Your task to perform on an android device: change the clock style Image 0: 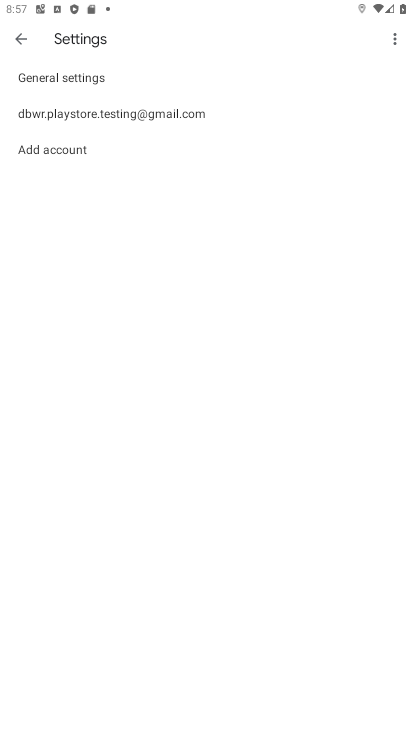
Step 0: click (179, 106)
Your task to perform on an android device: change the clock style Image 1: 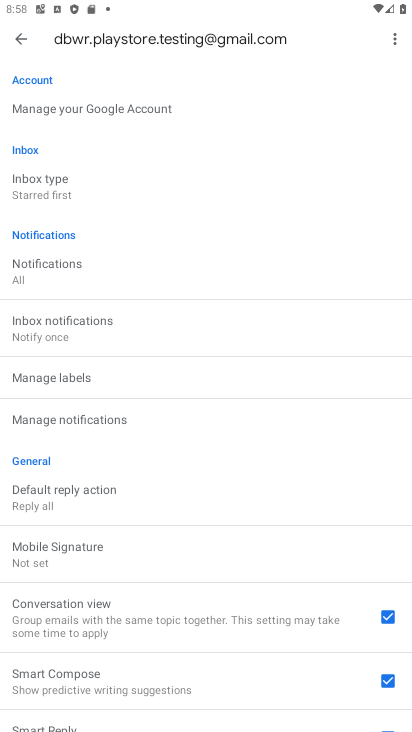
Step 1: press home button
Your task to perform on an android device: change the clock style Image 2: 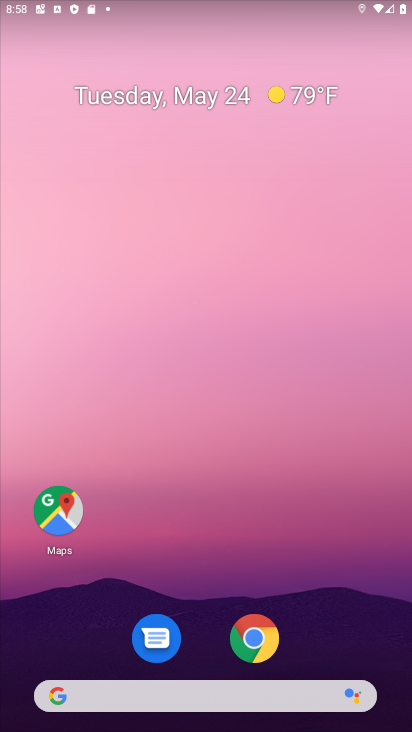
Step 2: drag from (143, 709) to (190, 269)
Your task to perform on an android device: change the clock style Image 3: 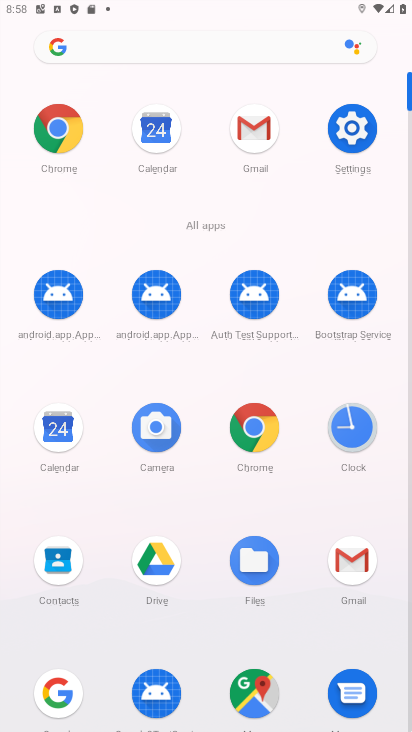
Step 3: click (351, 423)
Your task to perform on an android device: change the clock style Image 4: 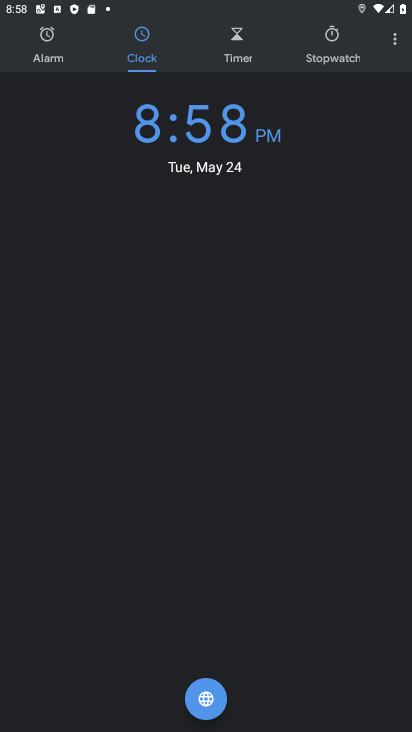
Step 4: click (394, 44)
Your task to perform on an android device: change the clock style Image 5: 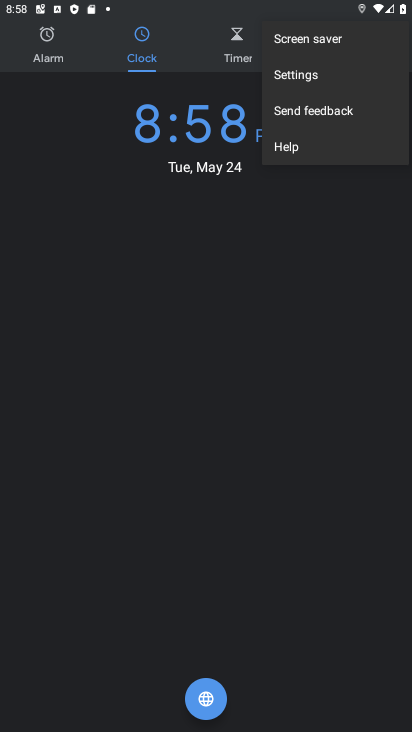
Step 5: click (327, 70)
Your task to perform on an android device: change the clock style Image 6: 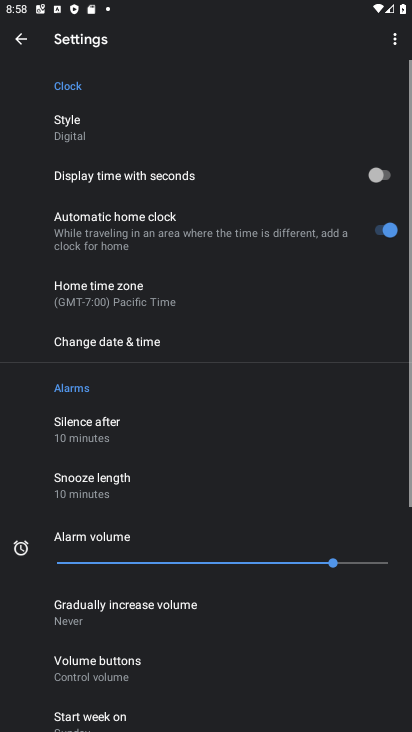
Step 6: click (122, 135)
Your task to perform on an android device: change the clock style Image 7: 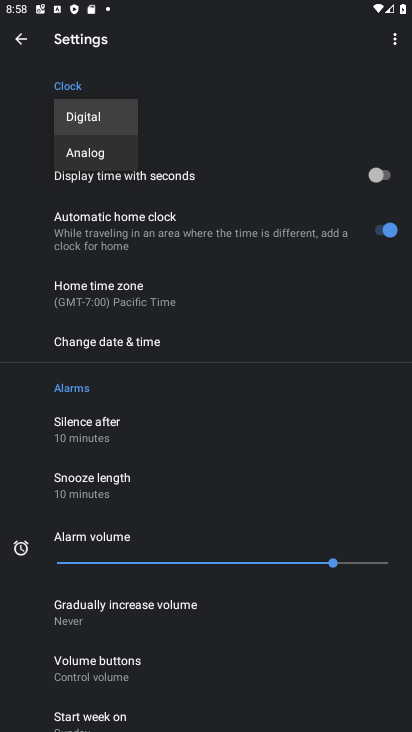
Step 7: click (106, 148)
Your task to perform on an android device: change the clock style Image 8: 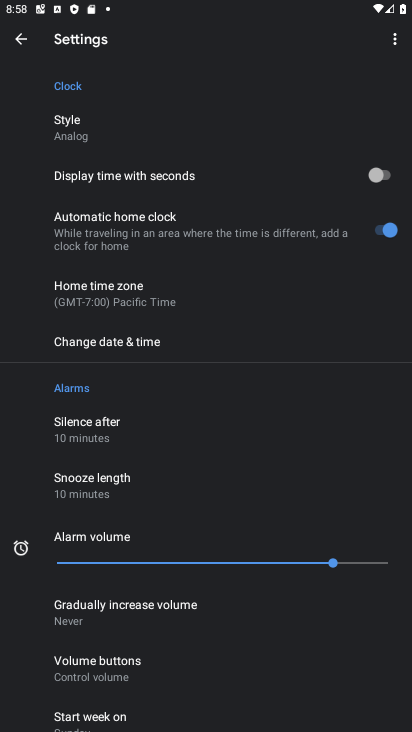
Step 8: task complete